Your task to perform on an android device: What's the weather? Image 0: 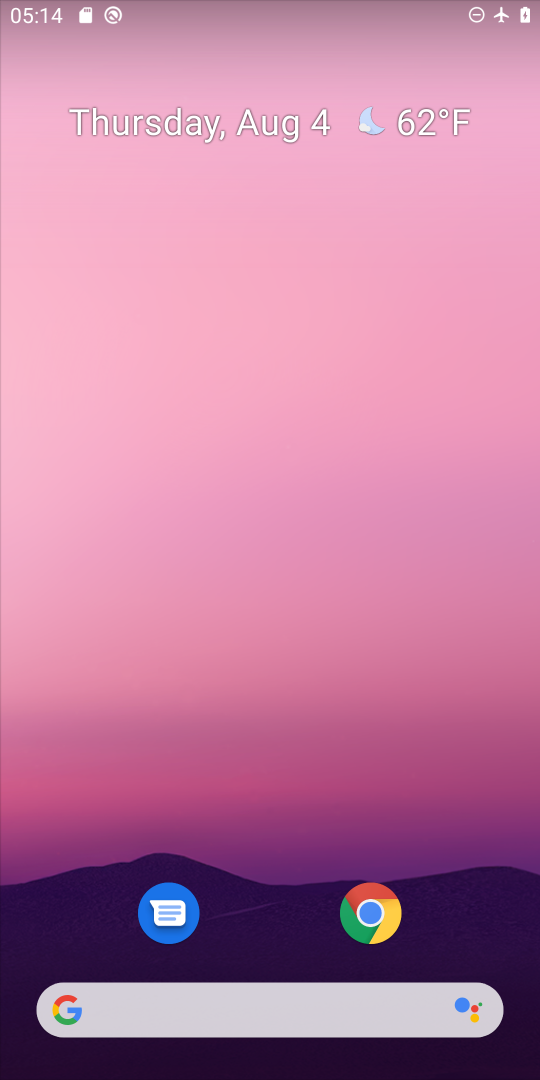
Step 0: press home button
Your task to perform on an android device: What's the weather? Image 1: 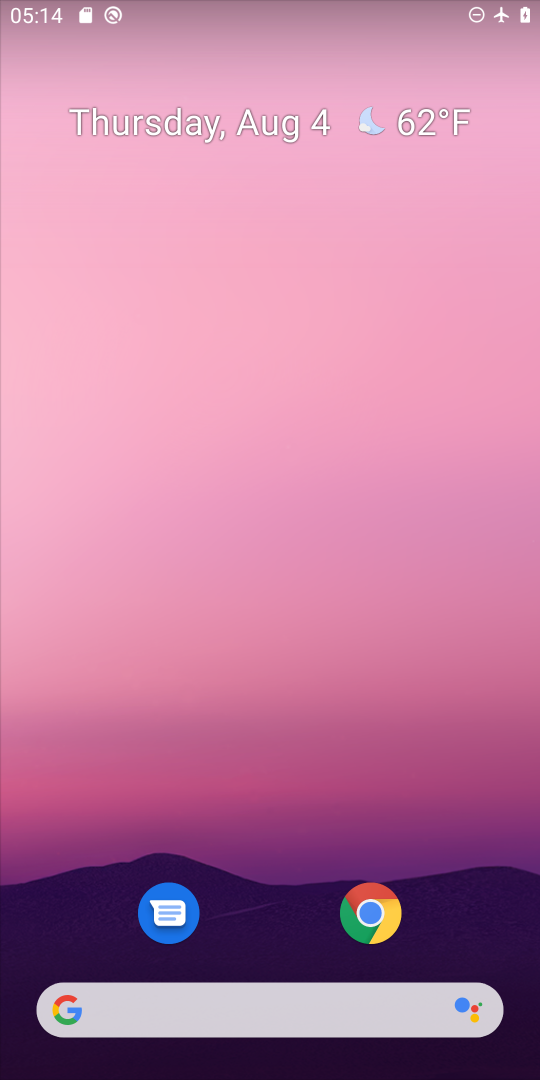
Step 1: drag from (315, 776) to (222, 104)
Your task to perform on an android device: What's the weather? Image 2: 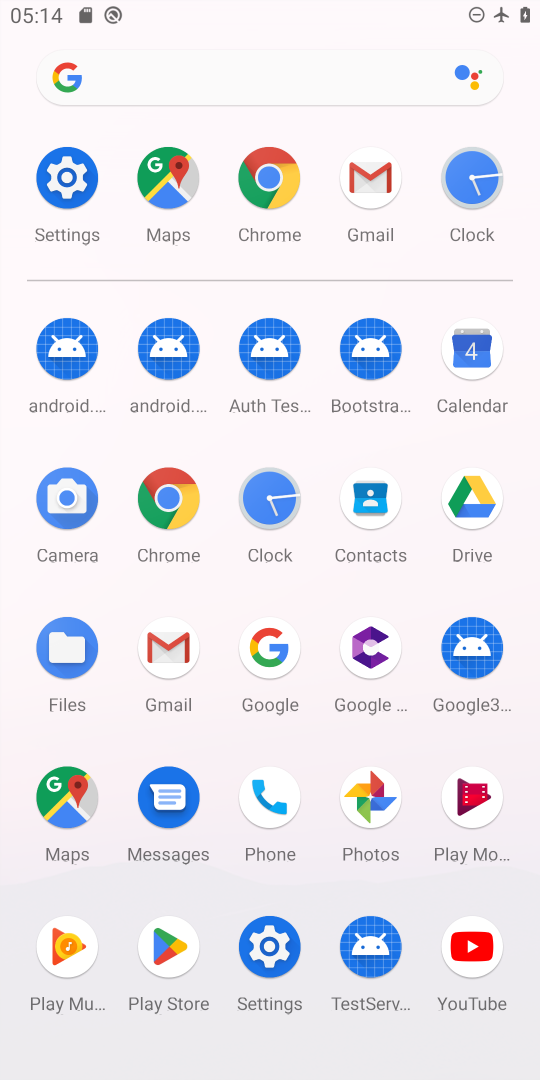
Step 2: click (260, 647)
Your task to perform on an android device: What's the weather? Image 3: 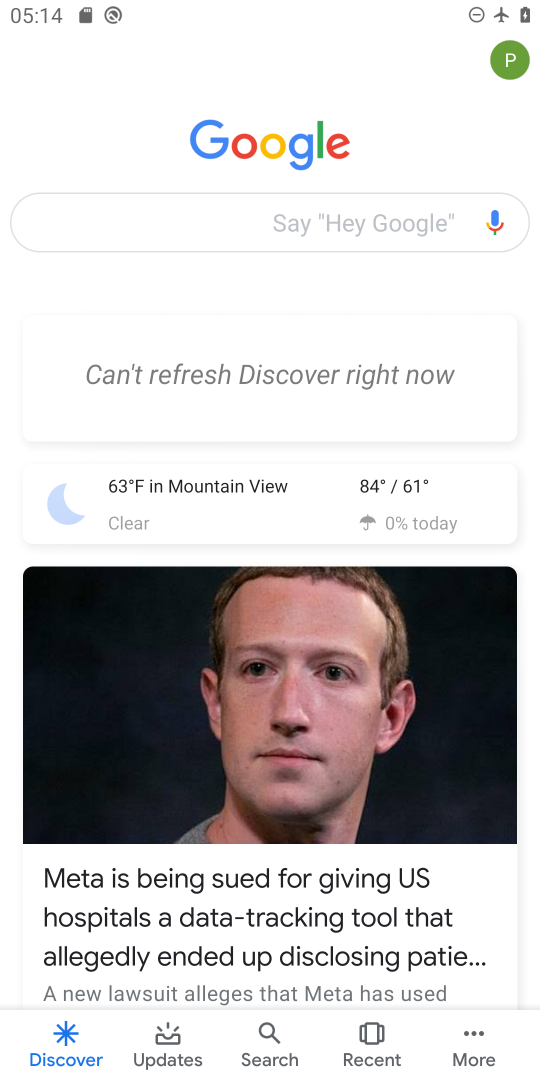
Step 3: click (300, 192)
Your task to perform on an android device: What's the weather? Image 4: 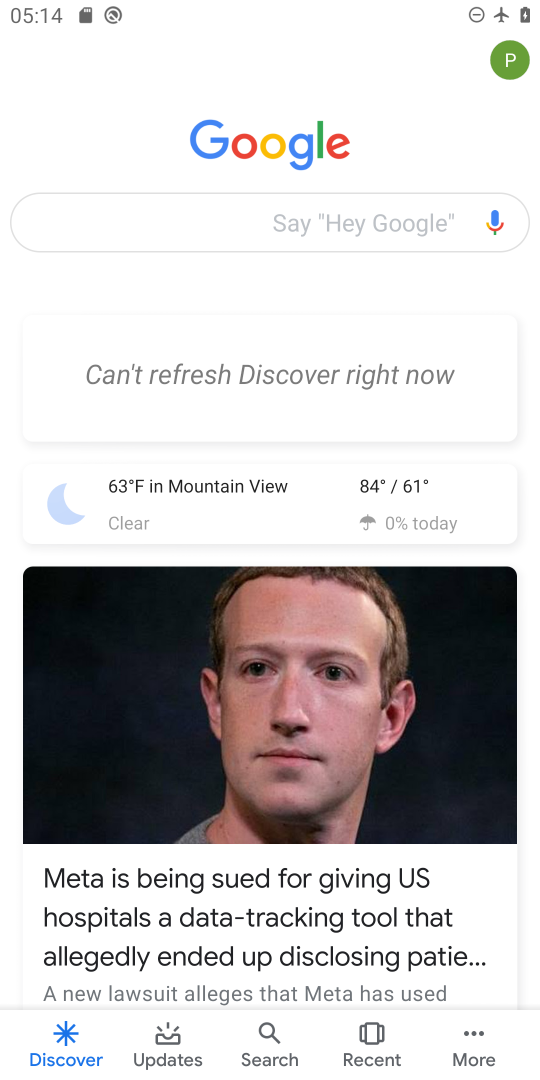
Step 4: click (301, 215)
Your task to perform on an android device: What's the weather? Image 5: 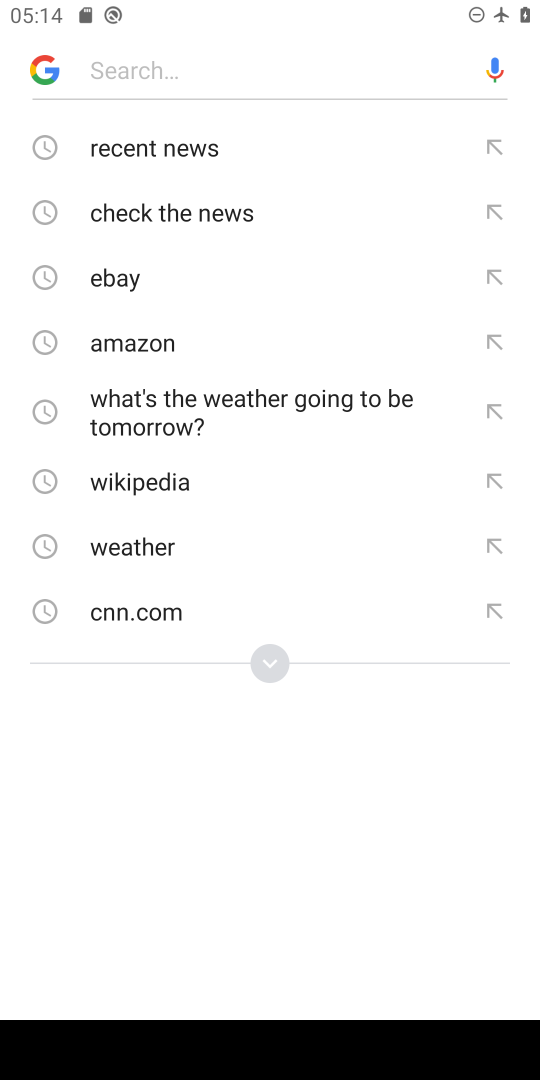
Step 5: type "whats the weather"
Your task to perform on an android device: What's the weather? Image 6: 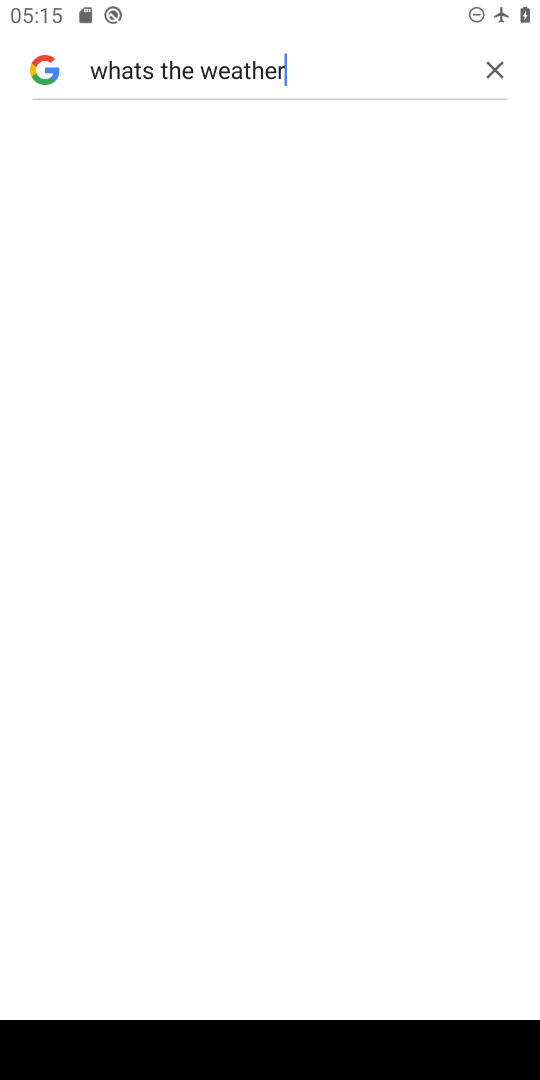
Step 6: type ""
Your task to perform on an android device: What's the weather? Image 7: 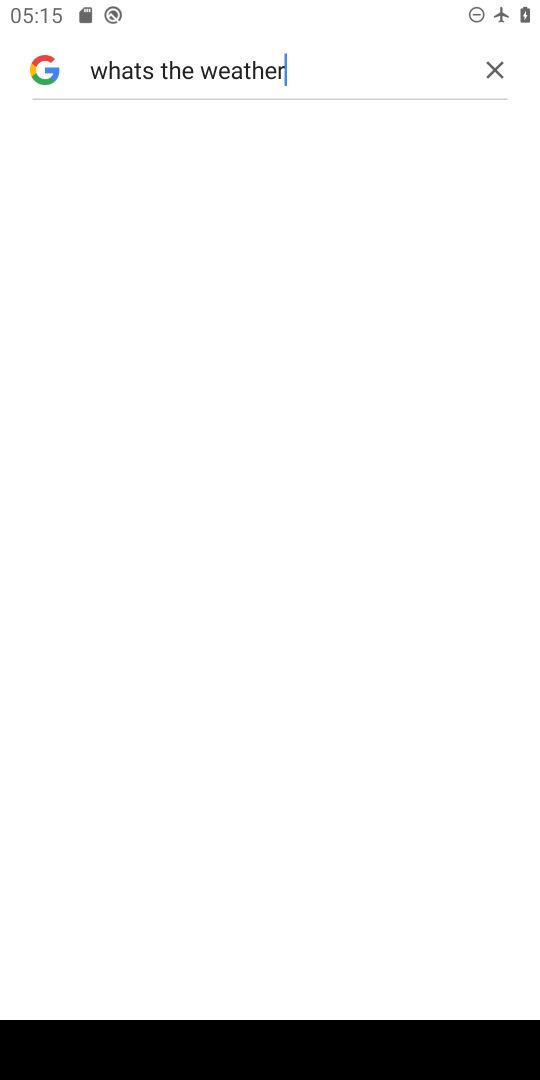
Step 7: type ""
Your task to perform on an android device: What's the weather? Image 8: 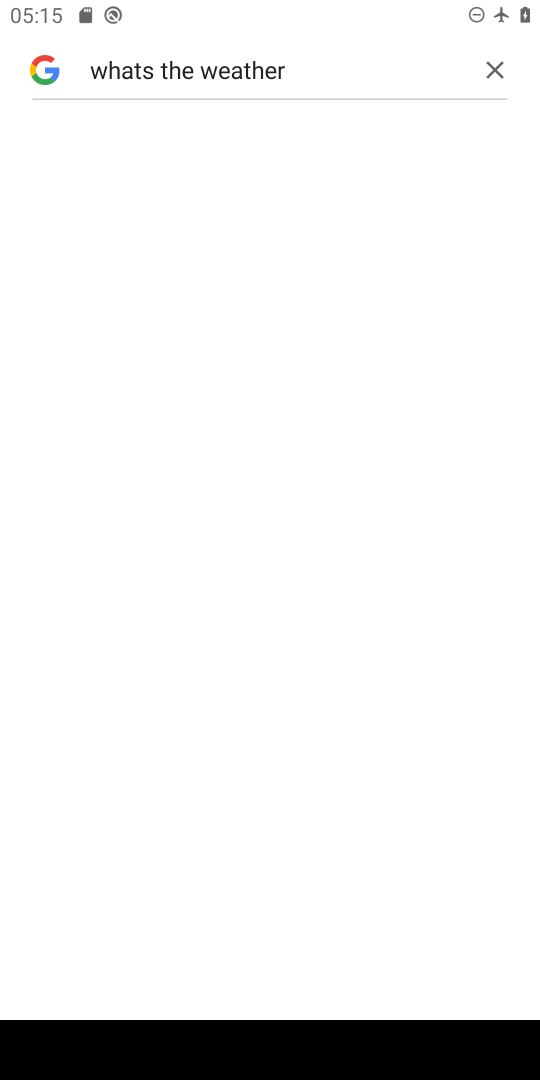
Step 8: type ""
Your task to perform on an android device: What's the weather? Image 9: 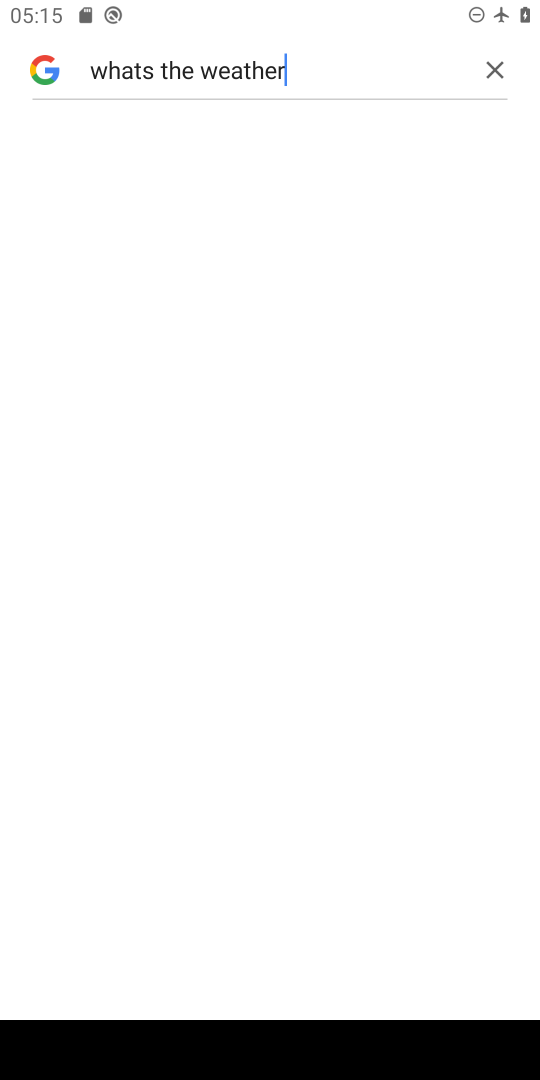
Step 9: task complete